Your task to perform on an android device: Do I have any events tomorrow? Image 0: 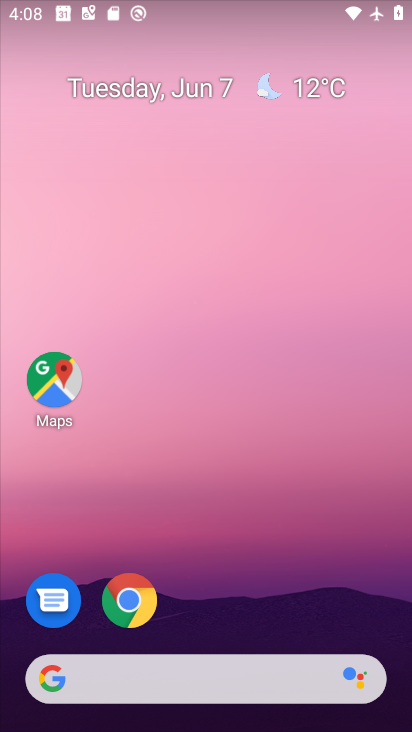
Step 0: click (316, 92)
Your task to perform on an android device: Do I have any events tomorrow? Image 1: 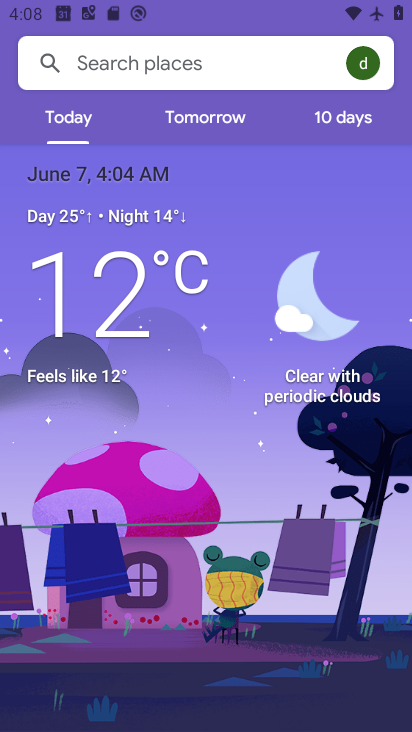
Step 1: click (246, 116)
Your task to perform on an android device: Do I have any events tomorrow? Image 2: 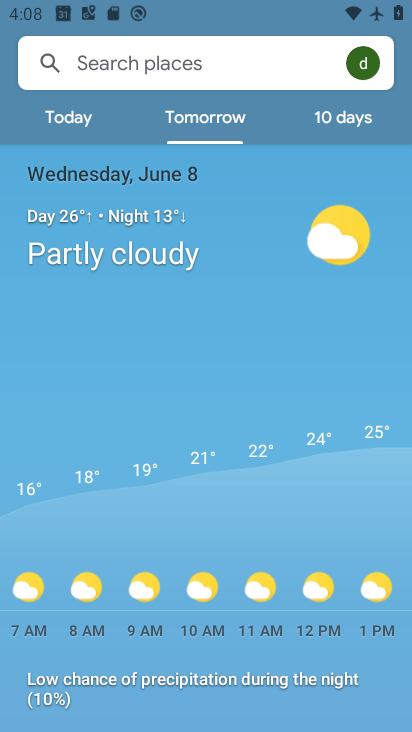
Step 2: task complete